Your task to perform on an android device: Open Amazon Image 0: 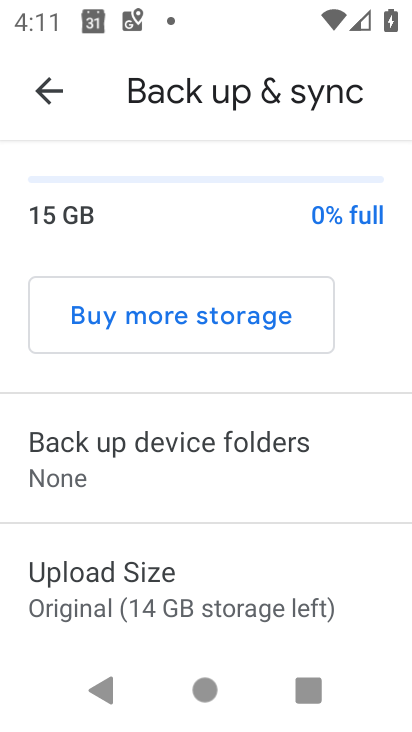
Step 0: press home button
Your task to perform on an android device: Open Amazon Image 1: 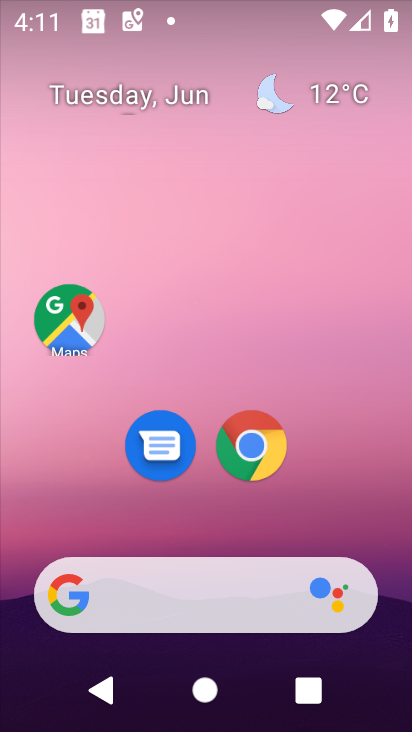
Step 1: drag from (301, 512) to (185, 2)
Your task to perform on an android device: Open Amazon Image 2: 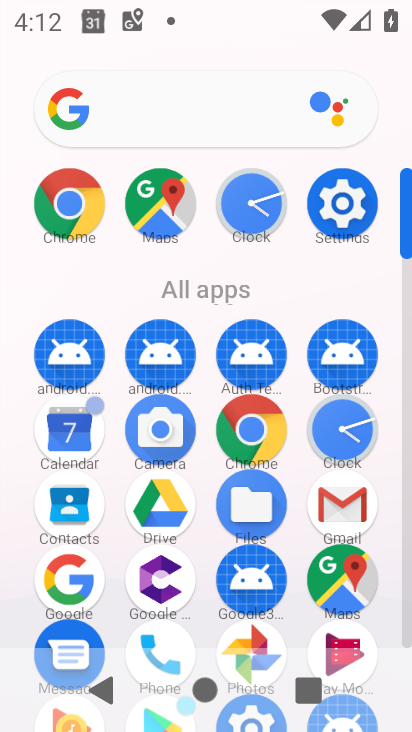
Step 2: click (69, 221)
Your task to perform on an android device: Open Amazon Image 3: 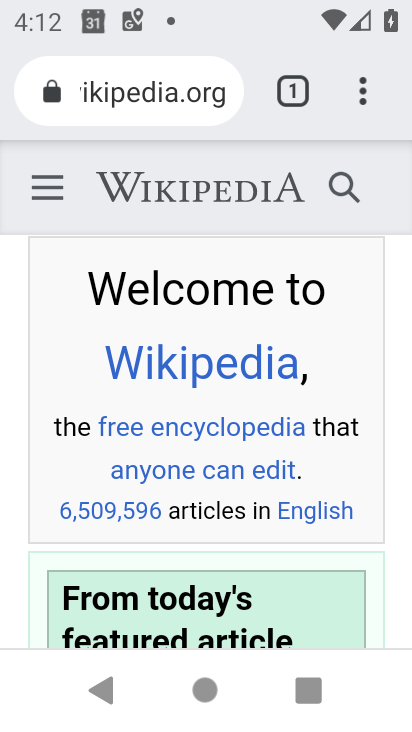
Step 3: click (191, 111)
Your task to perform on an android device: Open Amazon Image 4: 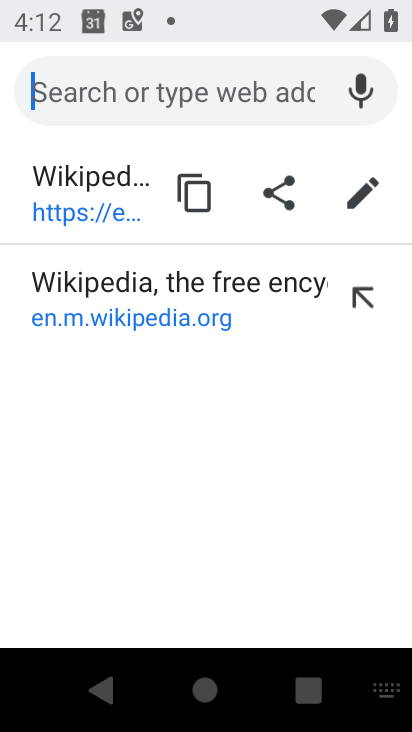
Step 4: type "amazon"
Your task to perform on an android device: Open Amazon Image 5: 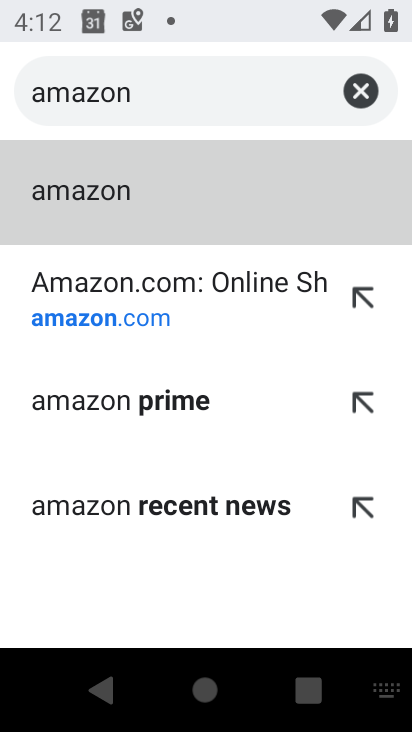
Step 5: click (91, 210)
Your task to perform on an android device: Open Amazon Image 6: 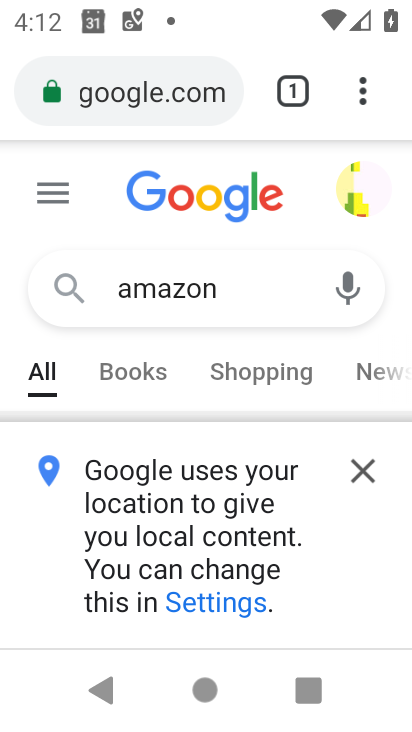
Step 6: click (368, 475)
Your task to perform on an android device: Open Amazon Image 7: 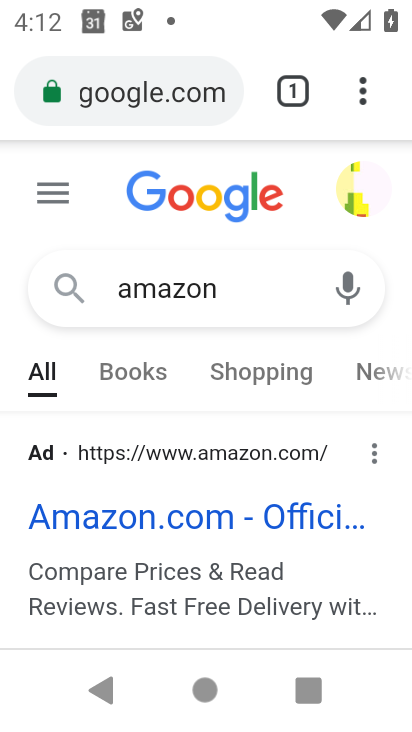
Step 7: click (119, 526)
Your task to perform on an android device: Open Amazon Image 8: 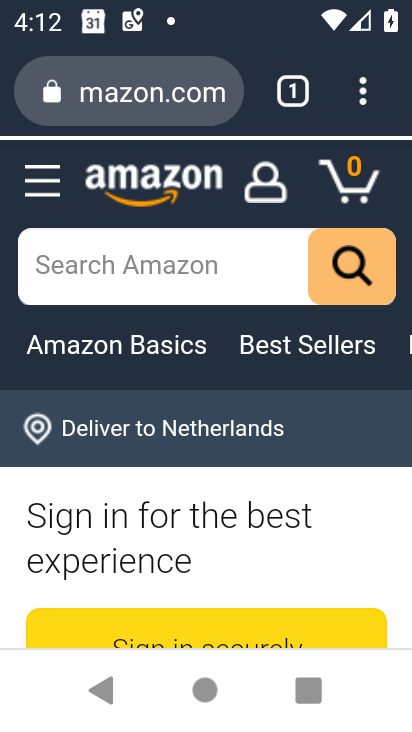
Step 8: task complete